Your task to perform on an android device: Search for a tv stand on Ikea Image 0: 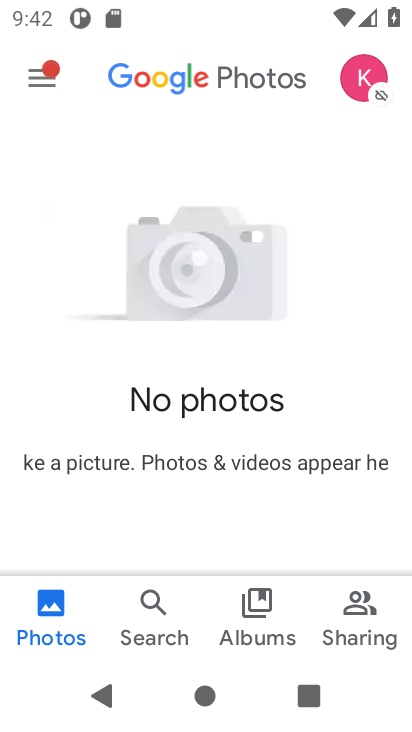
Step 0: task complete